Your task to perform on an android device: Go to notification settings Image 0: 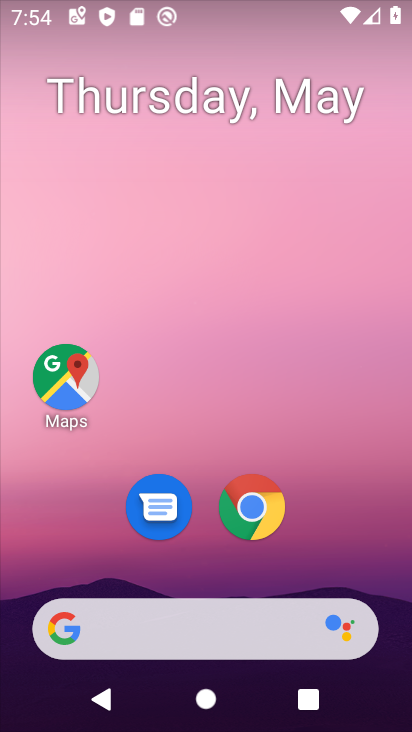
Step 0: drag from (317, 625) to (229, 275)
Your task to perform on an android device: Go to notification settings Image 1: 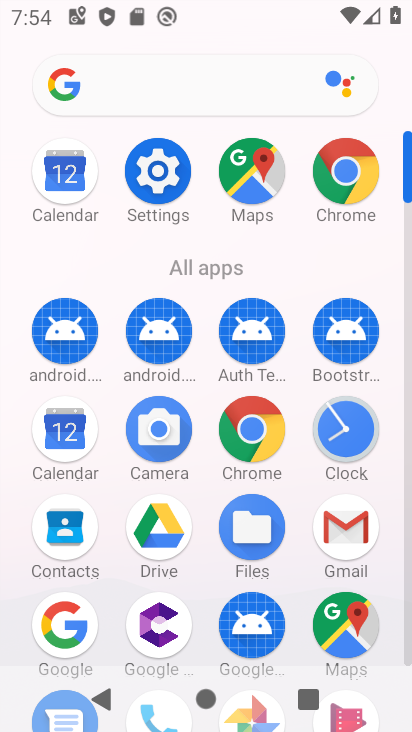
Step 1: click (153, 165)
Your task to perform on an android device: Go to notification settings Image 2: 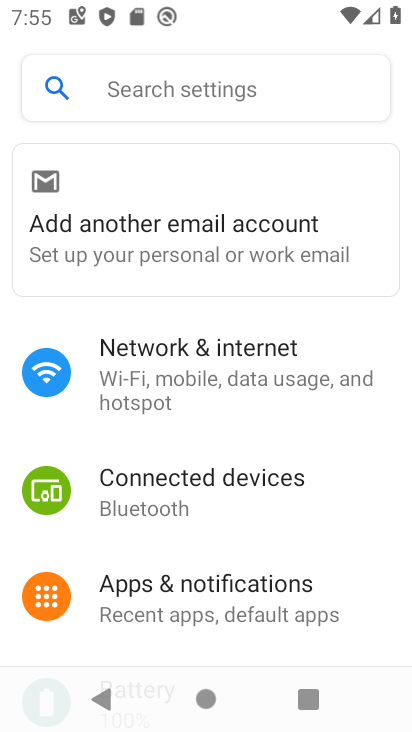
Step 2: click (157, 78)
Your task to perform on an android device: Go to notification settings Image 3: 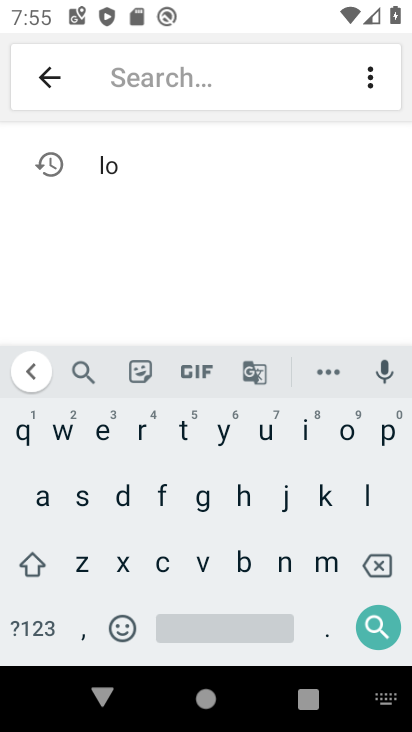
Step 3: click (280, 554)
Your task to perform on an android device: Go to notification settings Image 4: 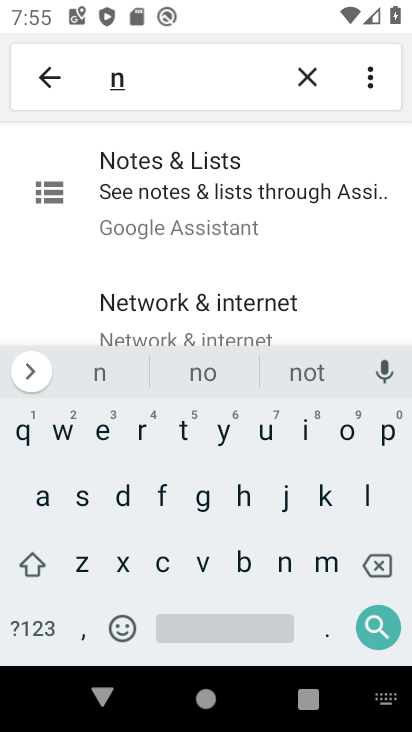
Step 4: click (354, 438)
Your task to perform on an android device: Go to notification settings Image 5: 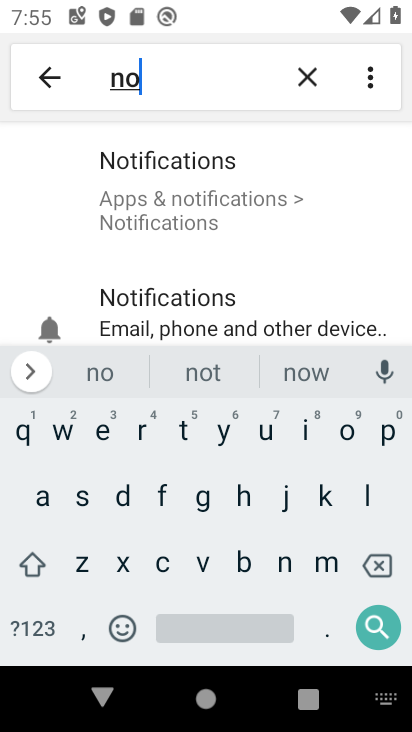
Step 5: click (192, 227)
Your task to perform on an android device: Go to notification settings Image 6: 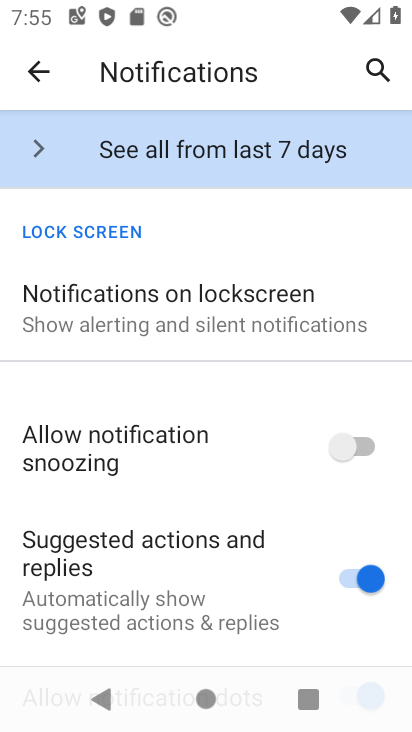
Step 6: click (160, 283)
Your task to perform on an android device: Go to notification settings Image 7: 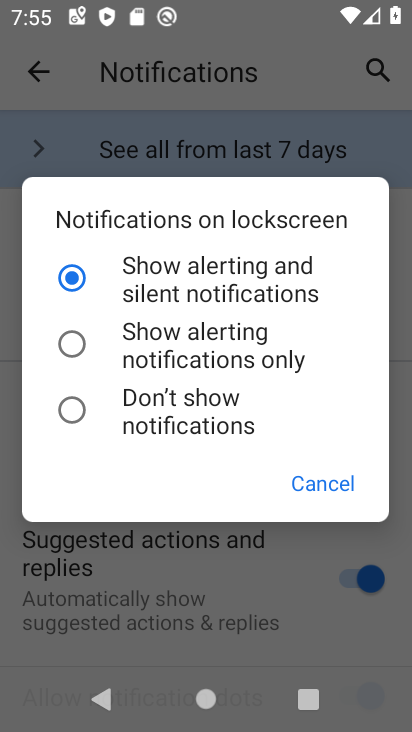
Step 7: task complete